Your task to perform on an android device: Go to eBay Image 0: 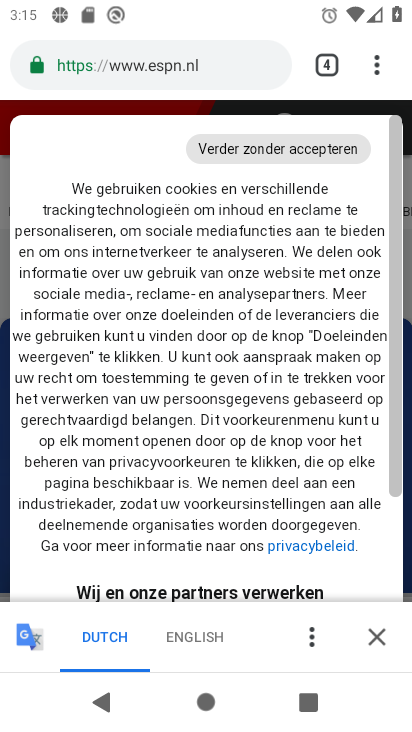
Step 0: click (326, 72)
Your task to perform on an android device: Go to eBay Image 1: 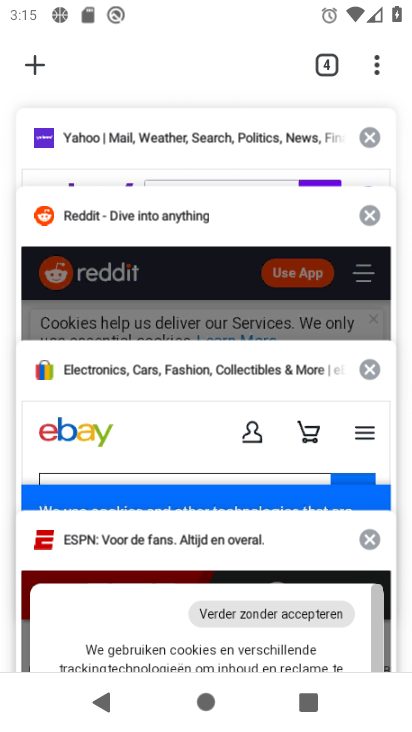
Step 1: click (89, 454)
Your task to perform on an android device: Go to eBay Image 2: 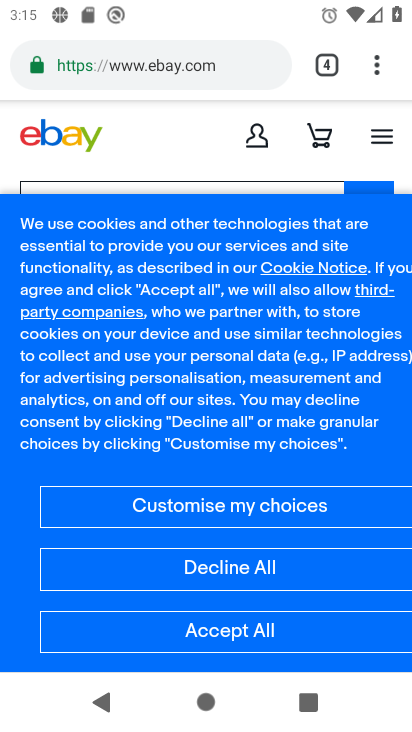
Step 2: task complete